Your task to perform on an android device: toggle location history Image 0: 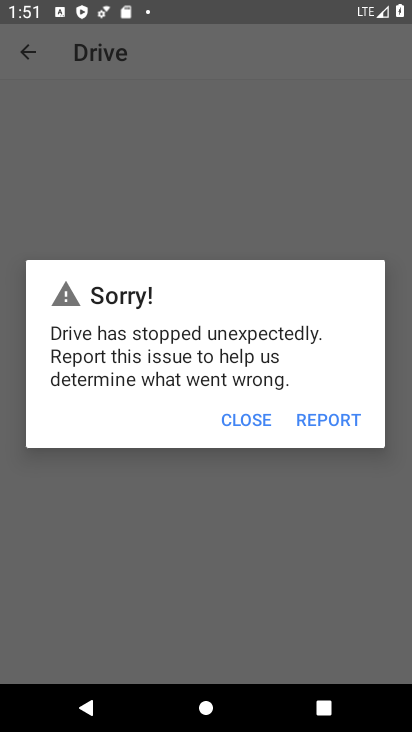
Step 0: press home button
Your task to perform on an android device: toggle location history Image 1: 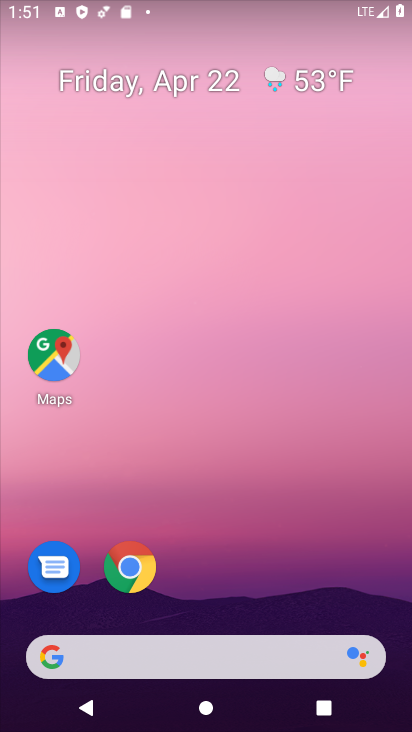
Step 1: click (53, 352)
Your task to perform on an android device: toggle location history Image 2: 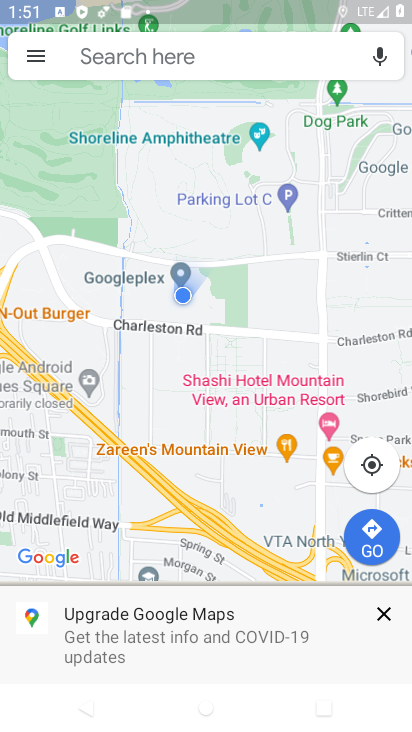
Step 2: click (30, 51)
Your task to perform on an android device: toggle location history Image 3: 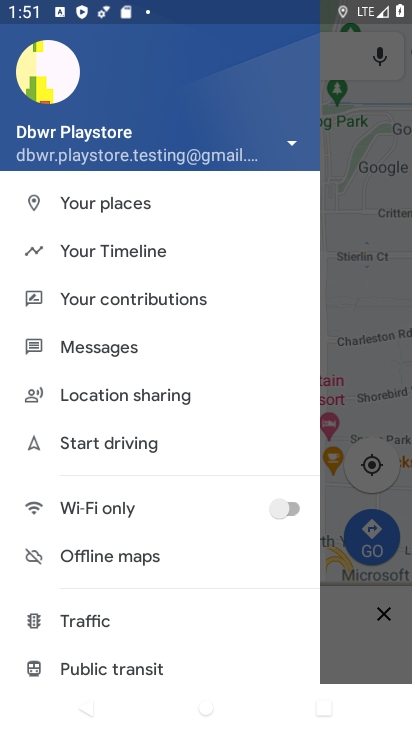
Step 3: drag from (229, 585) to (217, 334)
Your task to perform on an android device: toggle location history Image 4: 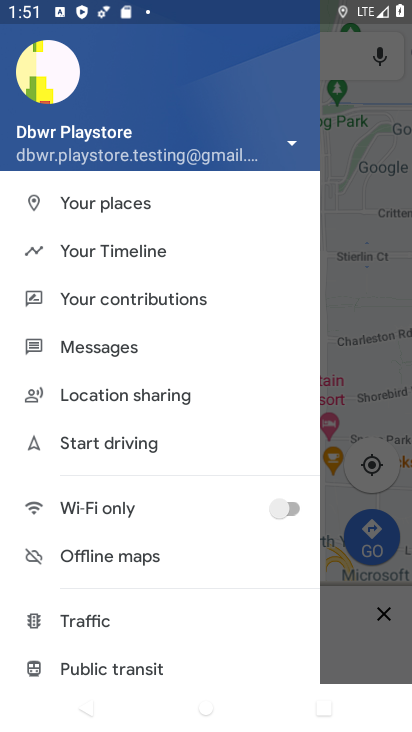
Step 4: drag from (200, 601) to (232, 322)
Your task to perform on an android device: toggle location history Image 5: 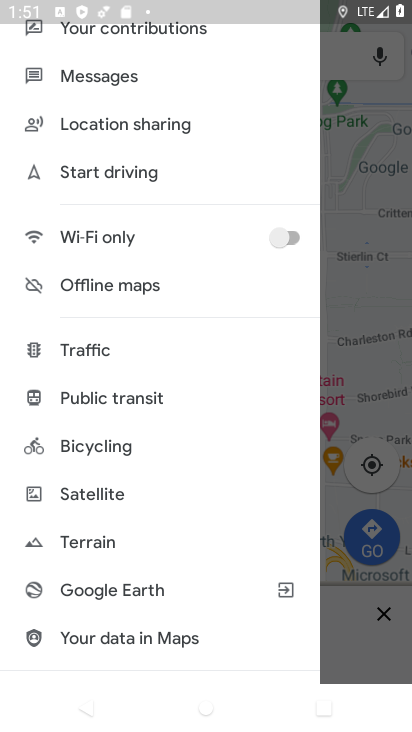
Step 5: drag from (195, 527) to (165, 214)
Your task to perform on an android device: toggle location history Image 6: 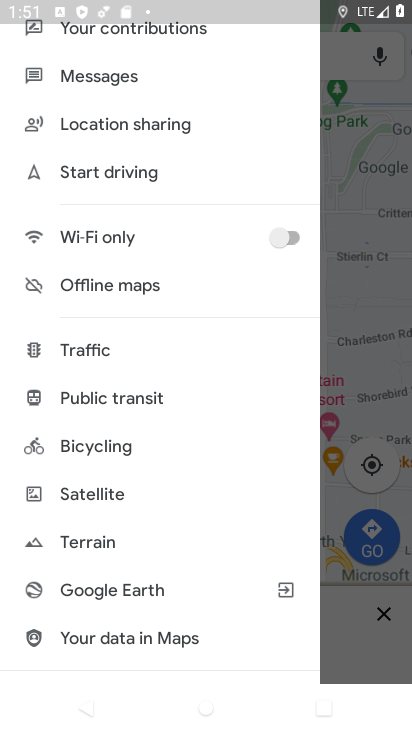
Step 6: drag from (167, 490) to (216, 212)
Your task to perform on an android device: toggle location history Image 7: 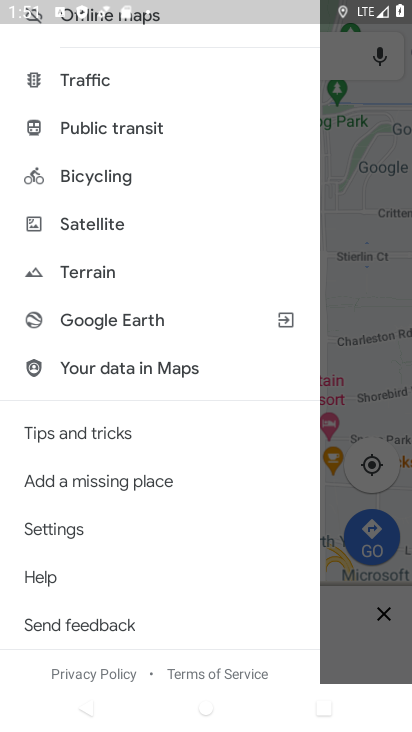
Step 7: click (30, 526)
Your task to perform on an android device: toggle location history Image 8: 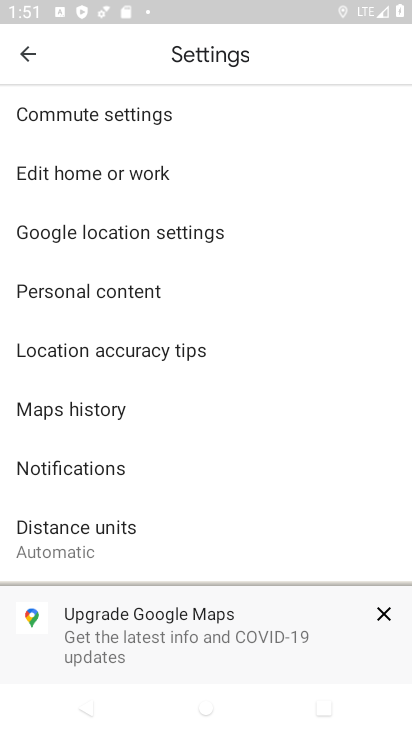
Step 8: click (65, 286)
Your task to perform on an android device: toggle location history Image 9: 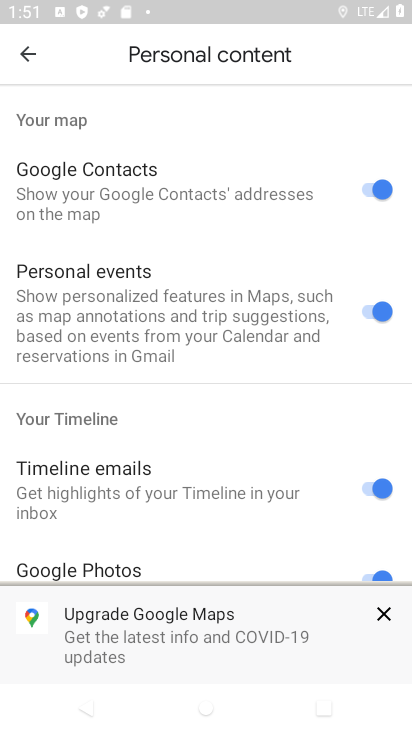
Step 9: drag from (304, 523) to (292, 194)
Your task to perform on an android device: toggle location history Image 10: 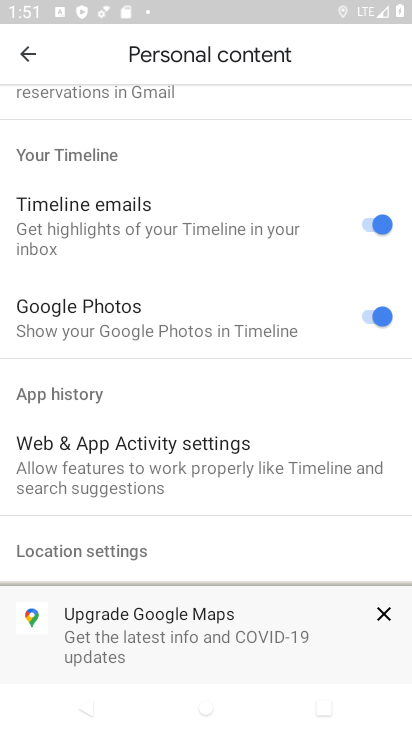
Step 10: drag from (298, 506) to (323, 204)
Your task to perform on an android device: toggle location history Image 11: 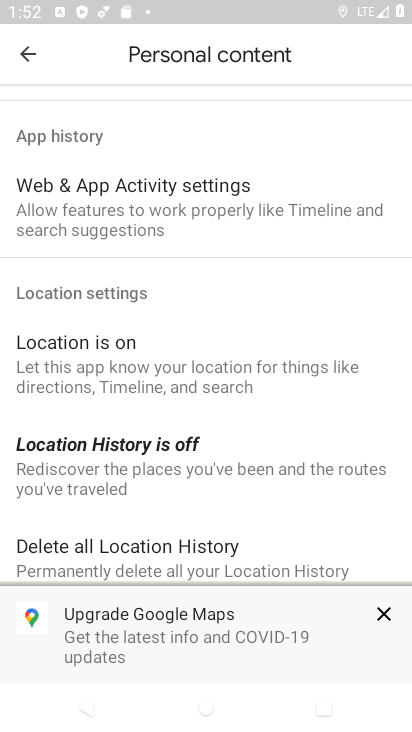
Step 11: drag from (280, 463) to (272, 196)
Your task to perform on an android device: toggle location history Image 12: 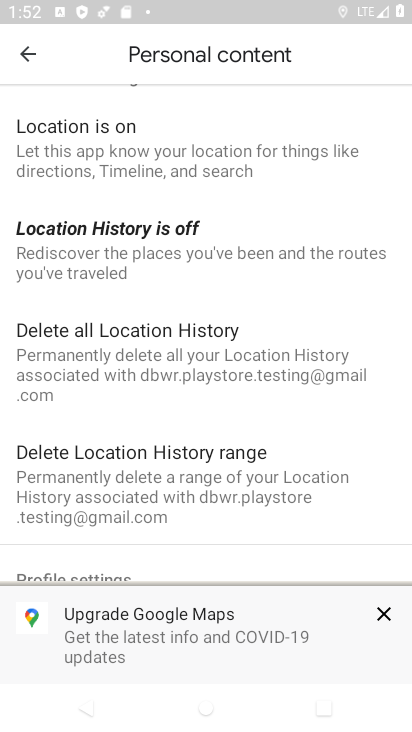
Step 12: click (113, 239)
Your task to perform on an android device: toggle location history Image 13: 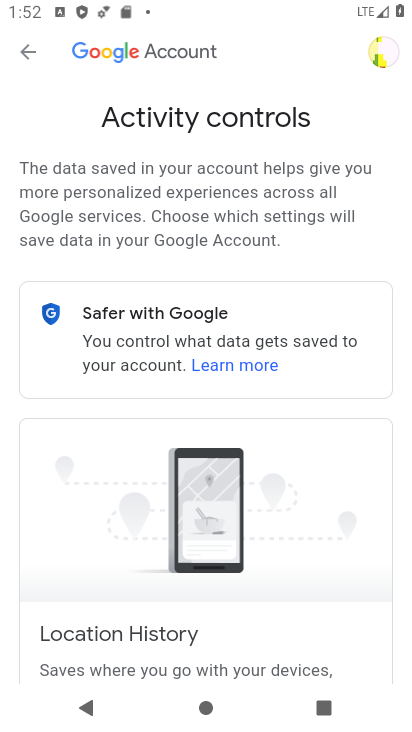
Step 13: drag from (300, 582) to (297, 223)
Your task to perform on an android device: toggle location history Image 14: 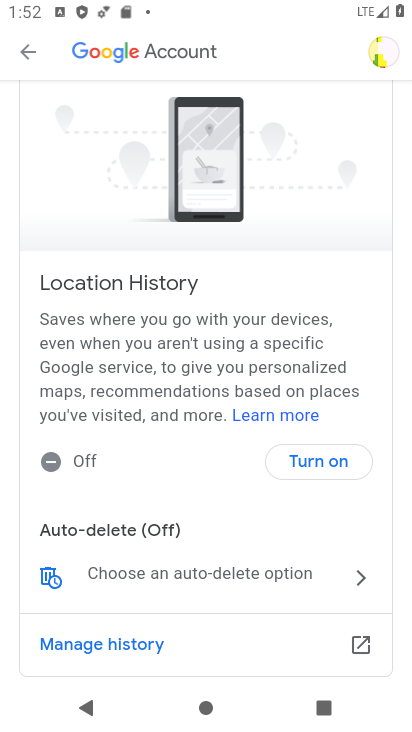
Step 14: click (310, 457)
Your task to perform on an android device: toggle location history Image 15: 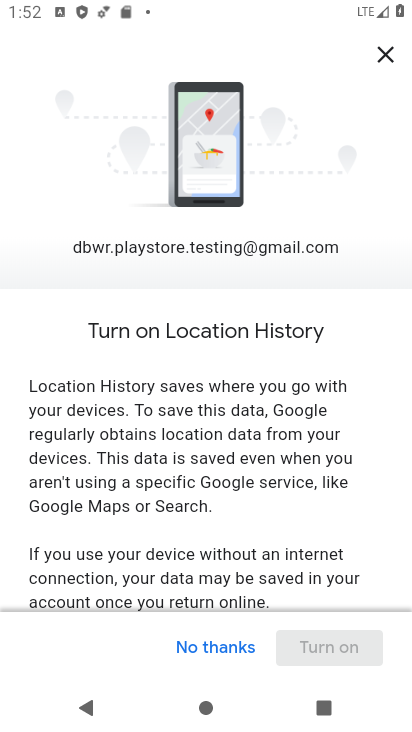
Step 15: drag from (276, 521) to (259, 156)
Your task to perform on an android device: toggle location history Image 16: 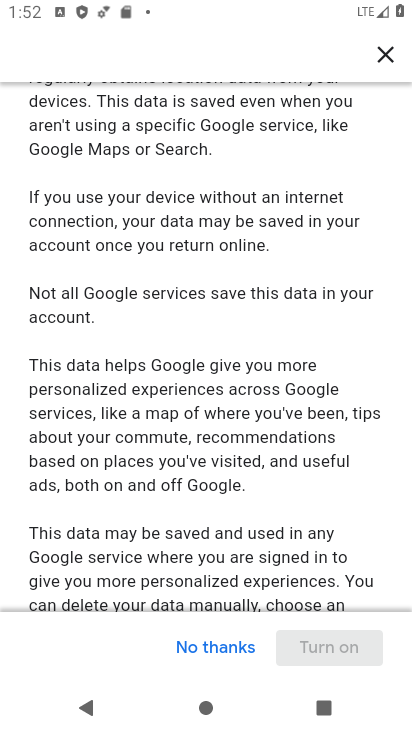
Step 16: drag from (284, 549) to (267, 235)
Your task to perform on an android device: toggle location history Image 17: 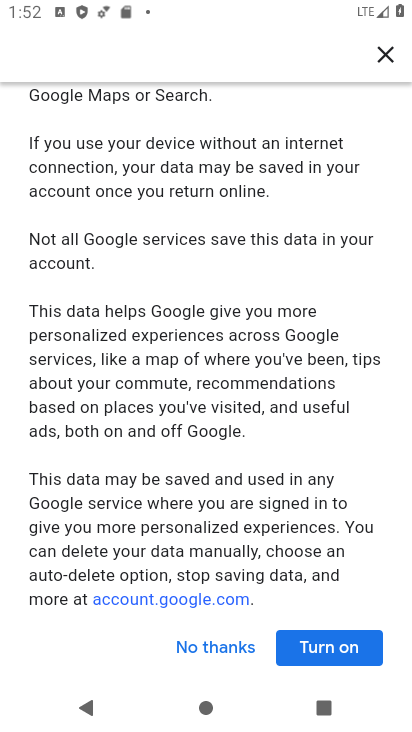
Step 17: click (332, 650)
Your task to perform on an android device: toggle location history Image 18: 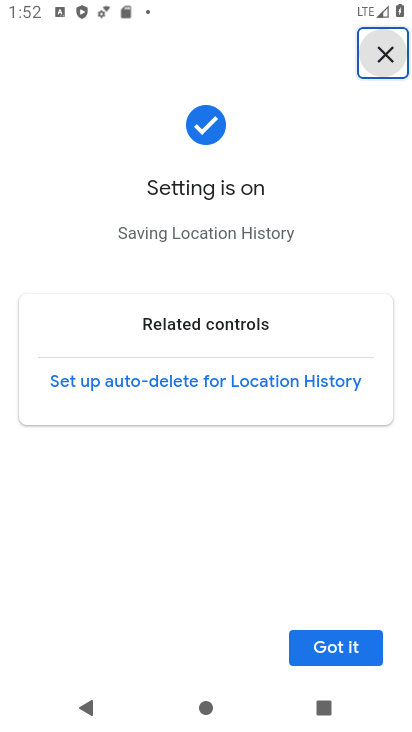
Step 18: click (332, 650)
Your task to perform on an android device: toggle location history Image 19: 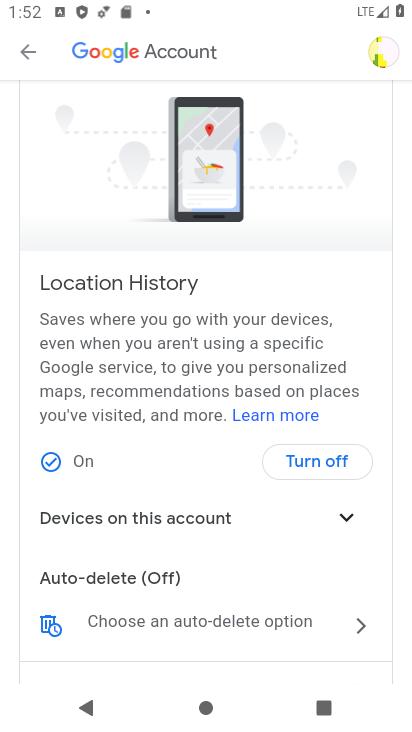
Step 19: task complete